Your task to perform on an android device: Go to Reddit.com Image 0: 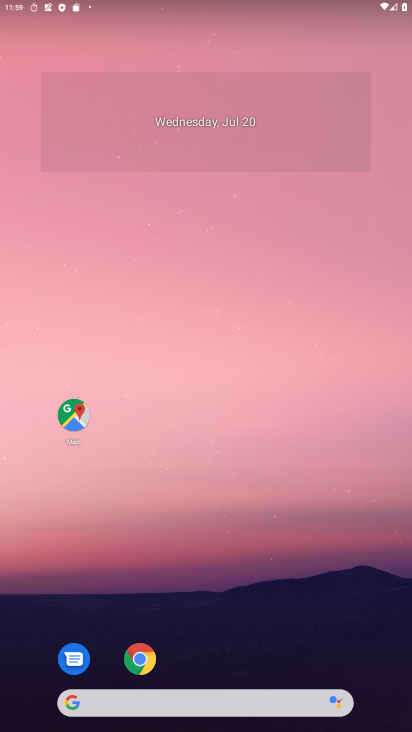
Step 0: drag from (296, 606) to (261, 16)
Your task to perform on an android device: Go to Reddit.com Image 1: 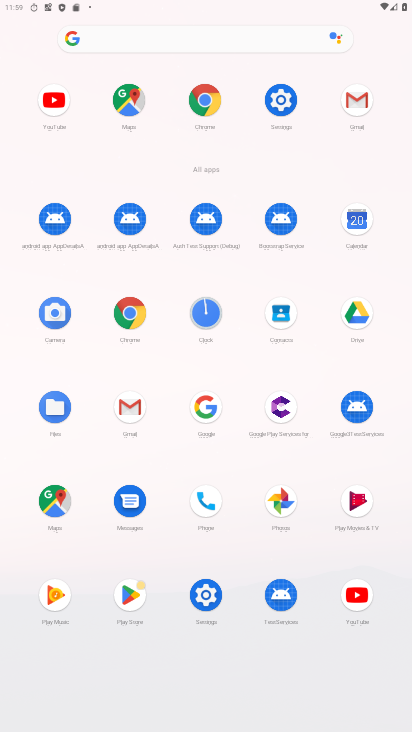
Step 1: click (205, 103)
Your task to perform on an android device: Go to Reddit.com Image 2: 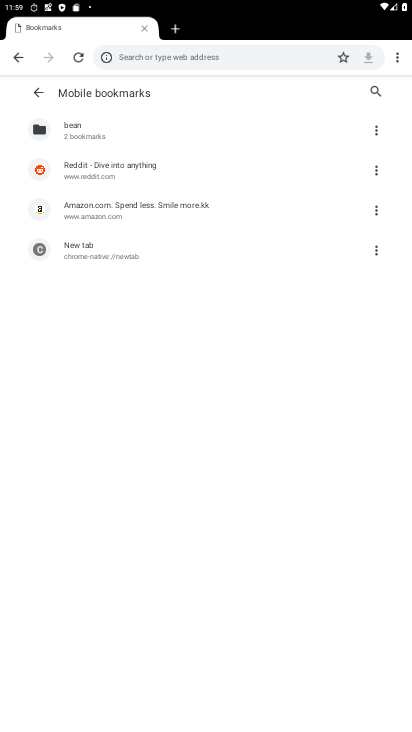
Step 2: click (227, 61)
Your task to perform on an android device: Go to Reddit.com Image 3: 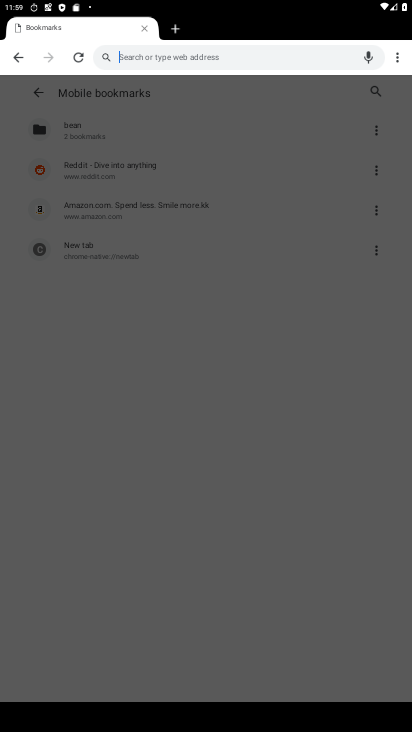
Step 3: type "reddit.com"
Your task to perform on an android device: Go to Reddit.com Image 4: 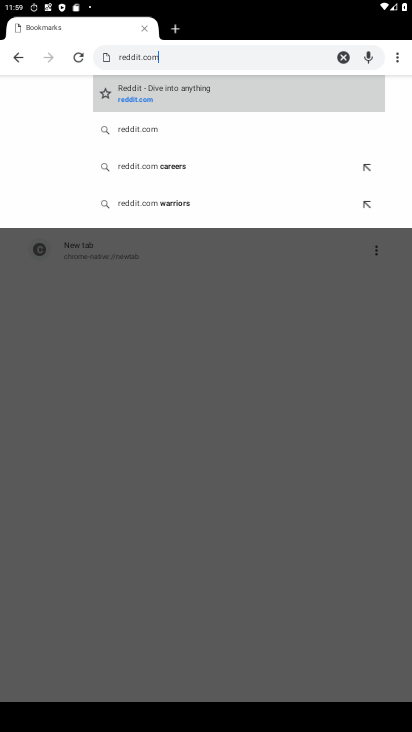
Step 4: click (136, 100)
Your task to perform on an android device: Go to Reddit.com Image 5: 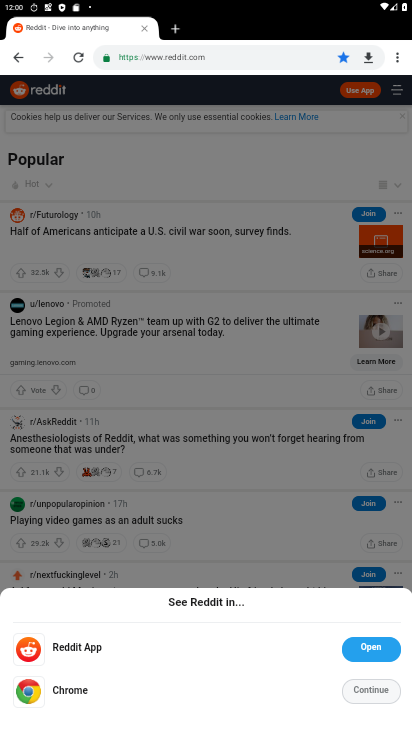
Step 5: task complete